Your task to perform on an android device: search for starred emails in the gmail app Image 0: 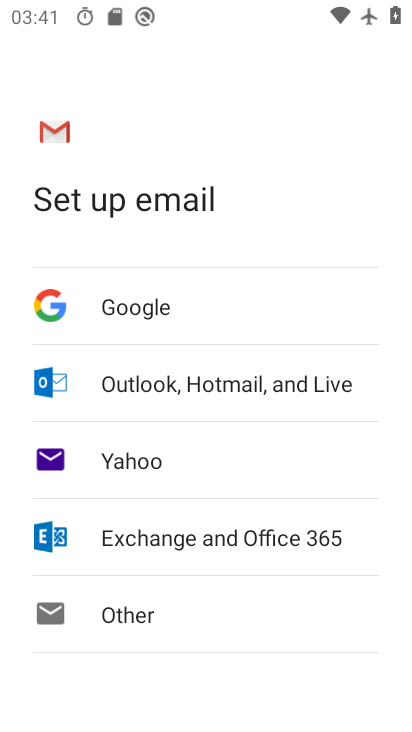
Step 0: press home button
Your task to perform on an android device: search for starred emails in the gmail app Image 1: 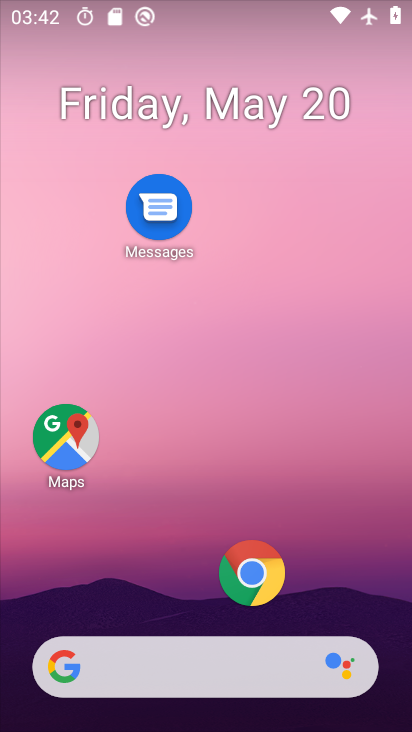
Step 1: drag from (189, 593) to (284, 182)
Your task to perform on an android device: search for starred emails in the gmail app Image 2: 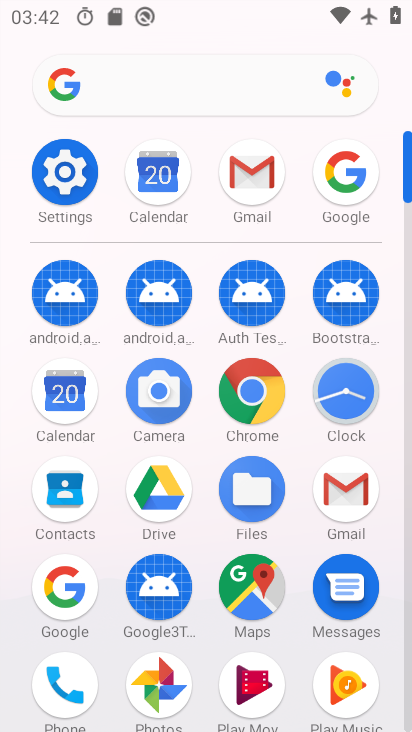
Step 2: click (263, 202)
Your task to perform on an android device: search for starred emails in the gmail app Image 3: 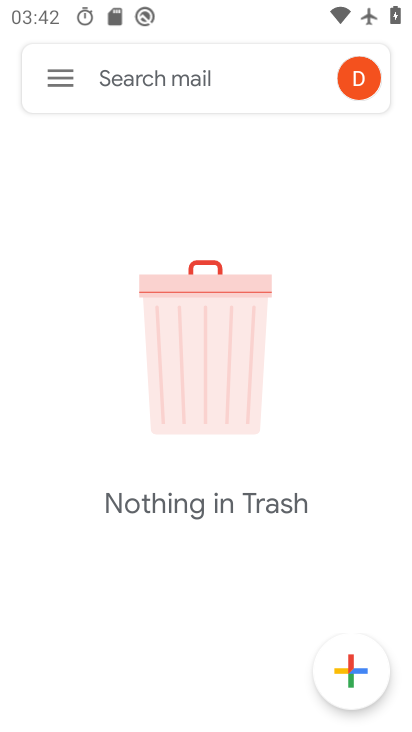
Step 3: click (67, 79)
Your task to perform on an android device: search for starred emails in the gmail app Image 4: 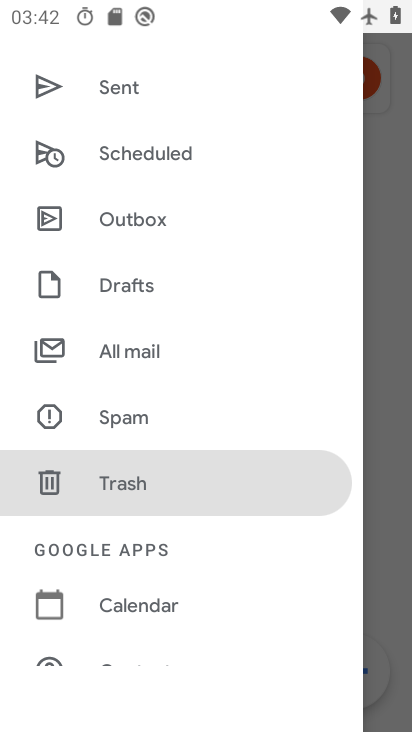
Step 4: drag from (177, 179) to (149, 482)
Your task to perform on an android device: search for starred emails in the gmail app Image 5: 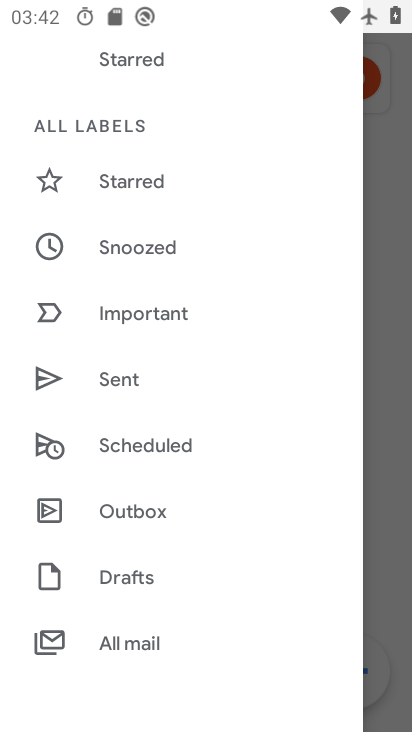
Step 5: click (153, 192)
Your task to perform on an android device: search for starred emails in the gmail app Image 6: 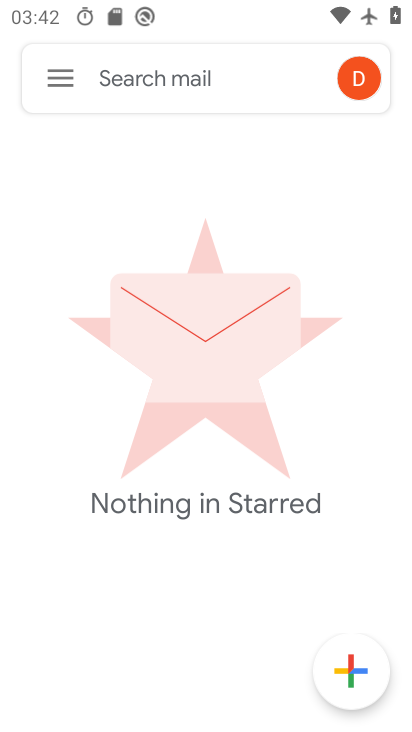
Step 6: click (63, 79)
Your task to perform on an android device: search for starred emails in the gmail app Image 7: 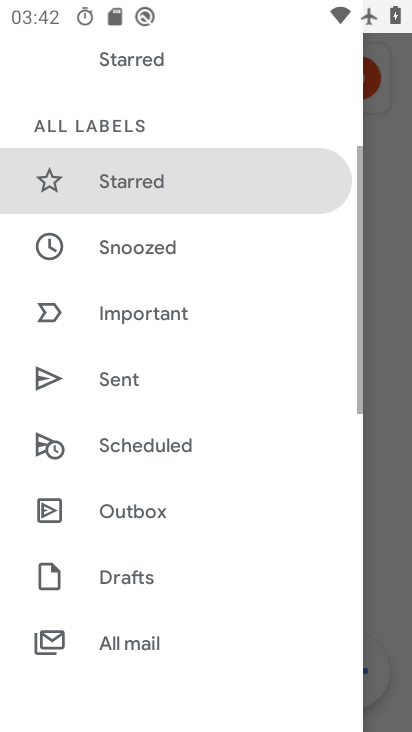
Step 7: task complete